Your task to perform on an android device: Go to CNN.com Image 0: 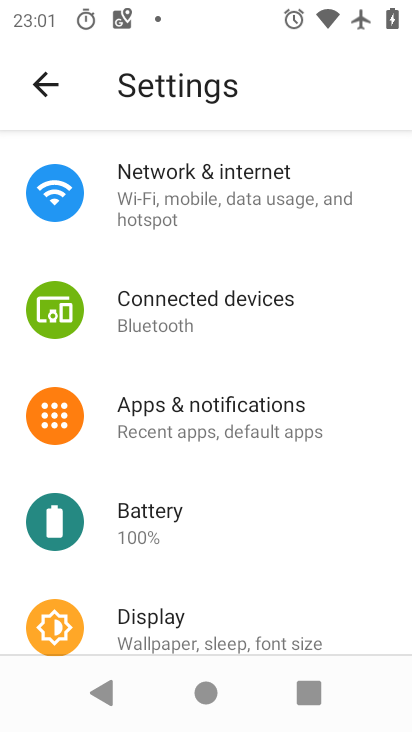
Step 0: drag from (205, 548) to (291, 92)
Your task to perform on an android device: Go to CNN.com Image 1: 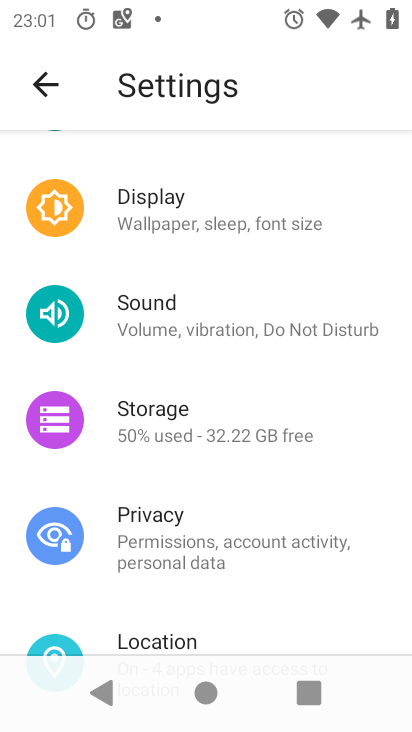
Step 1: drag from (249, 559) to (291, 203)
Your task to perform on an android device: Go to CNN.com Image 2: 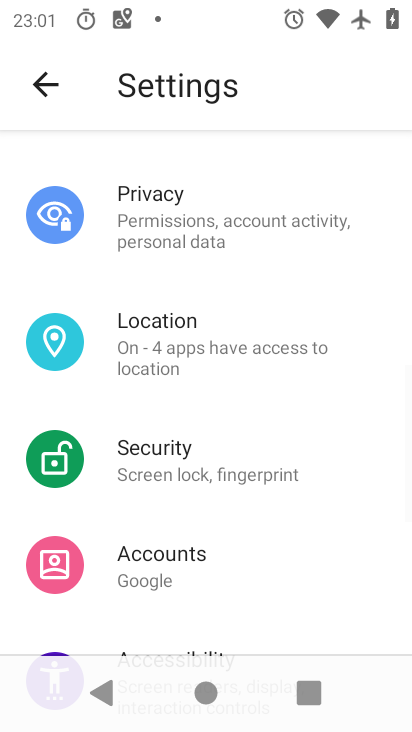
Step 2: press back button
Your task to perform on an android device: Go to CNN.com Image 3: 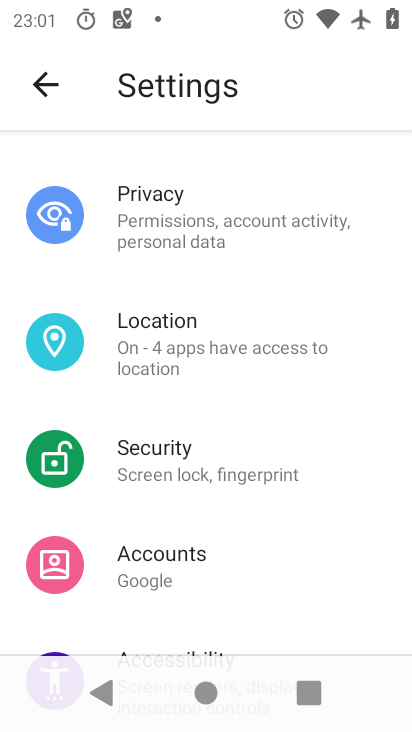
Step 3: press home button
Your task to perform on an android device: Go to CNN.com Image 4: 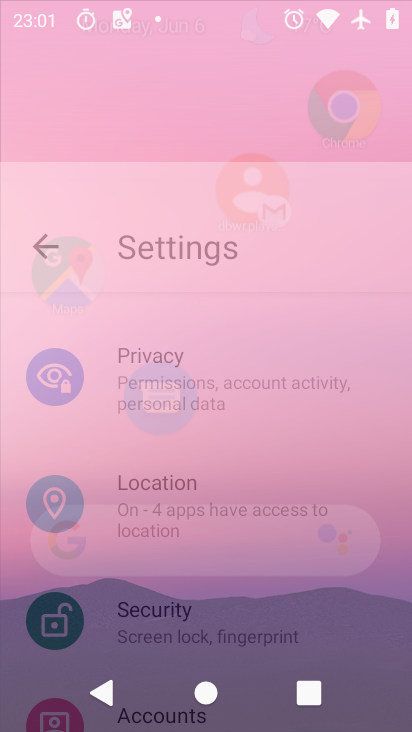
Step 4: drag from (217, 580) to (264, 9)
Your task to perform on an android device: Go to CNN.com Image 5: 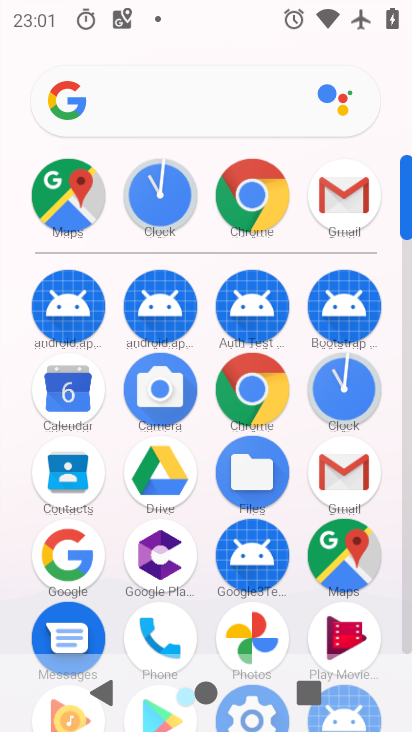
Step 5: click (176, 92)
Your task to perform on an android device: Go to CNN.com Image 6: 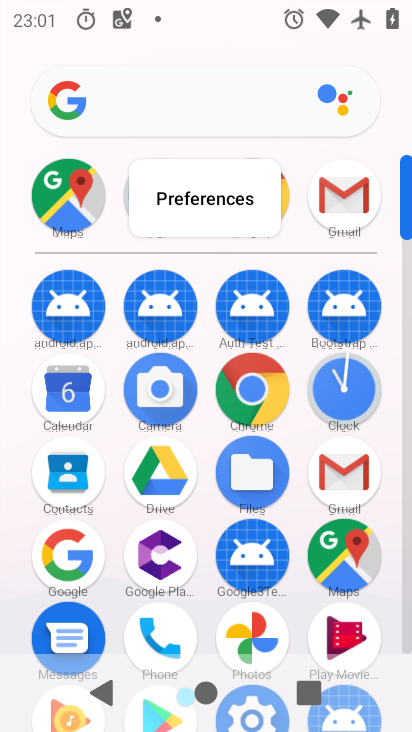
Step 6: click (129, 77)
Your task to perform on an android device: Go to CNN.com Image 7: 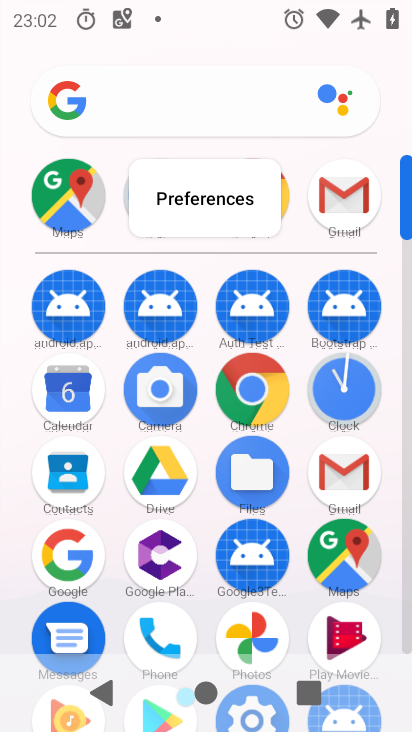
Step 7: click (150, 99)
Your task to perform on an android device: Go to CNN.com Image 8: 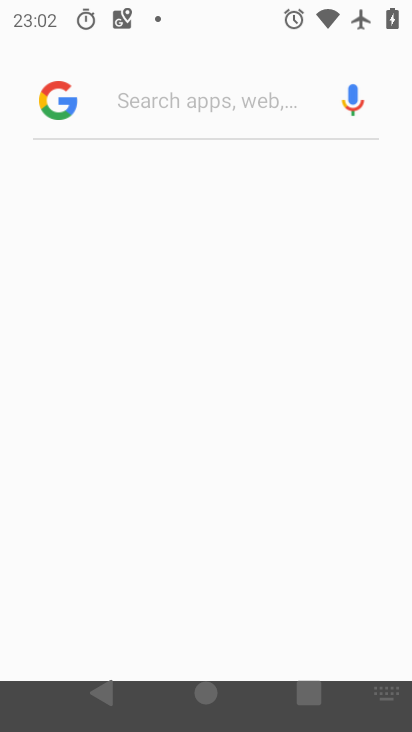
Step 8: click (150, 100)
Your task to perform on an android device: Go to CNN.com Image 9: 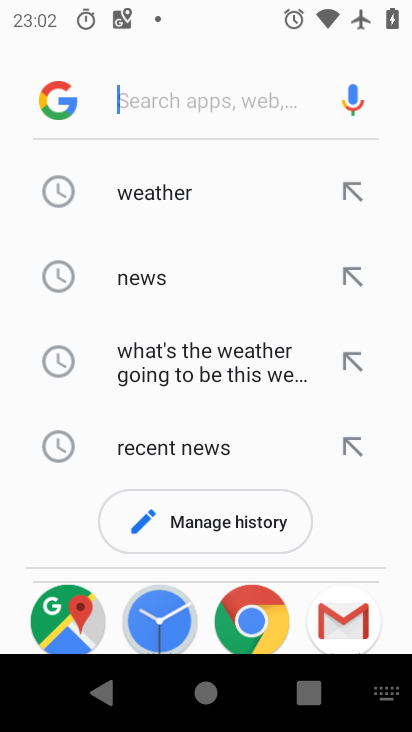
Step 9: type "CNN.com"
Your task to perform on an android device: Go to CNN.com Image 10: 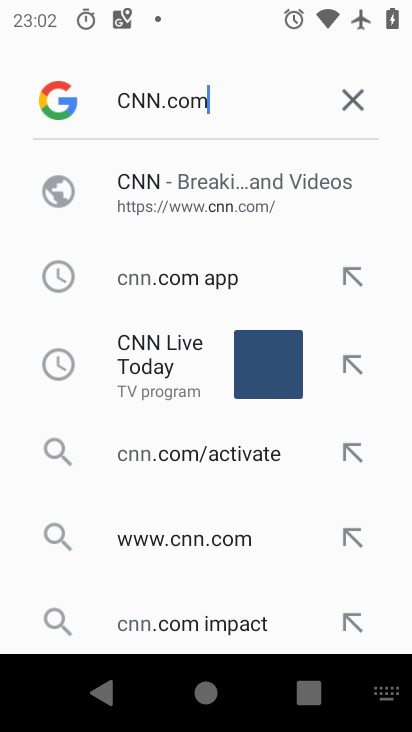
Step 10: type ""
Your task to perform on an android device: Go to CNN.com Image 11: 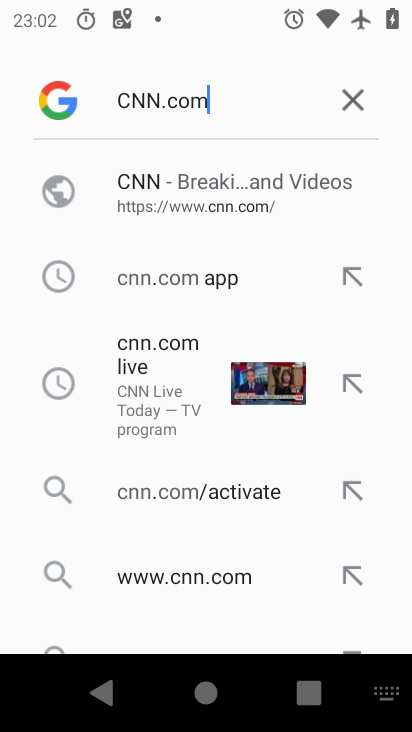
Step 11: click (133, 190)
Your task to perform on an android device: Go to CNN.com Image 12: 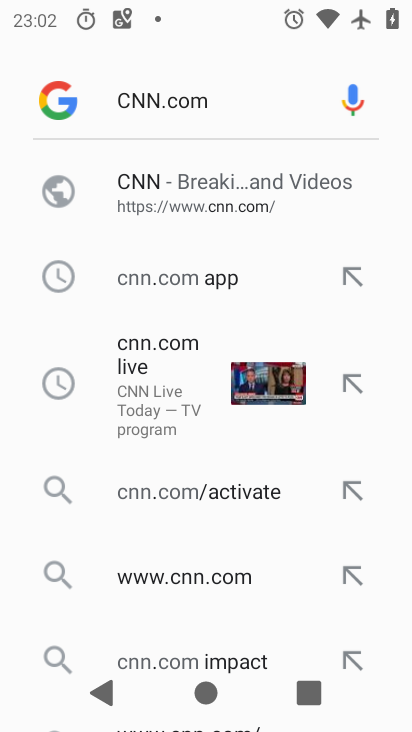
Step 12: task complete